Your task to perform on an android device: choose inbox layout in the gmail app Image 0: 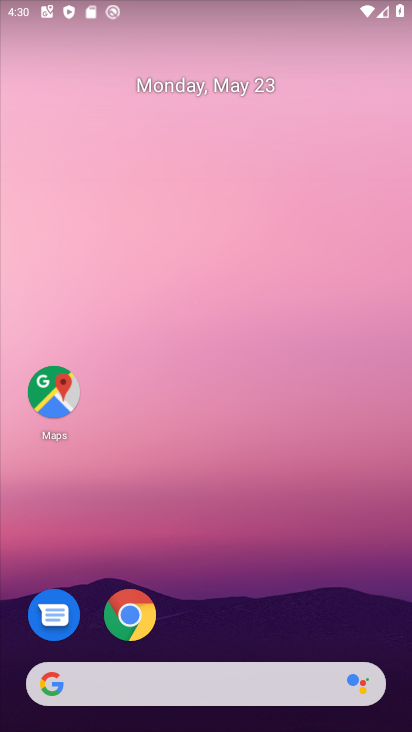
Step 0: drag from (193, 496) to (200, 130)
Your task to perform on an android device: choose inbox layout in the gmail app Image 1: 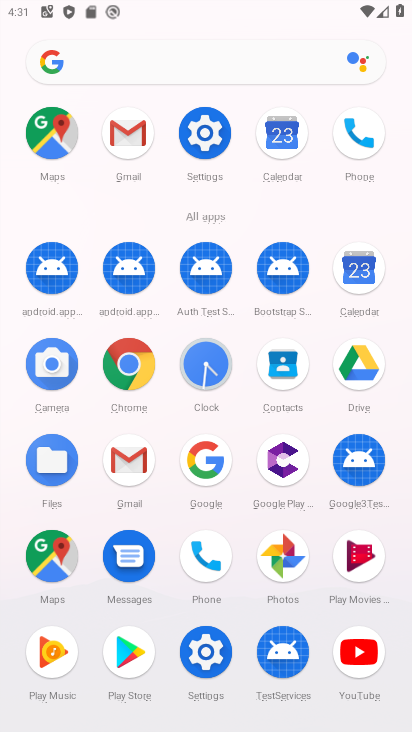
Step 1: click (132, 129)
Your task to perform on an android device: choose inbox layout in the gmail app Image 2: 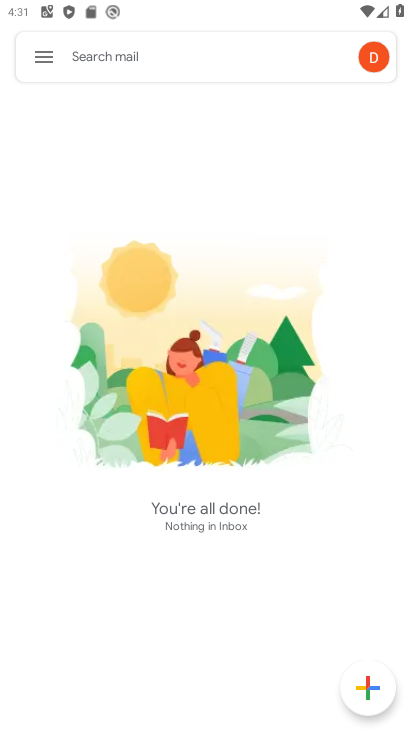
Step 2: click (38, 59)
Your task to perform on an android device: choose inbox layout in the gmail app Image 3: 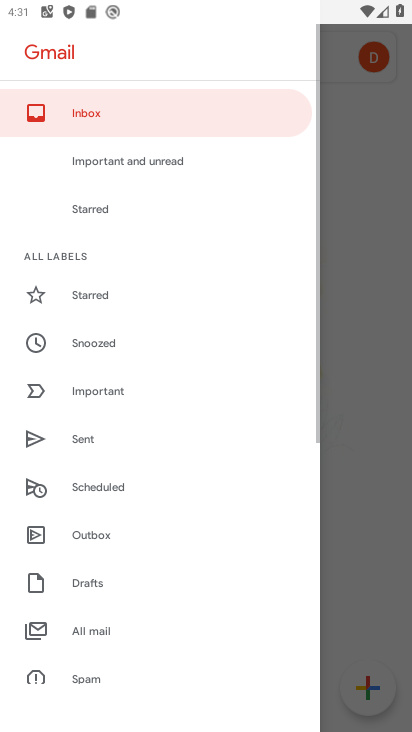
Step 3: drag from (166, 648) to (165, 97)
Your task to perform on an android device: choose inbox layout in the gmail app Image 4: 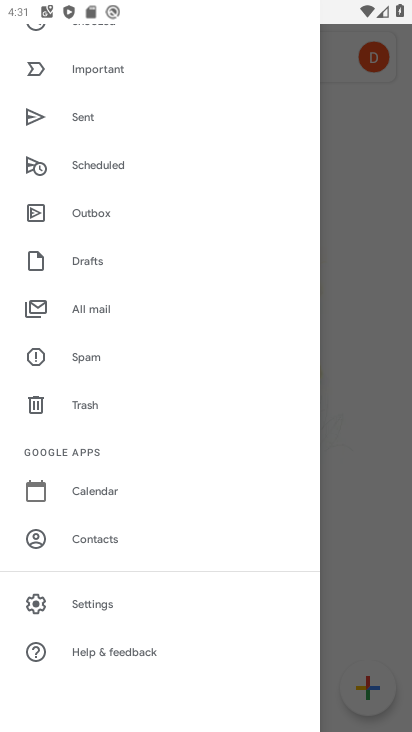
Step 4: click (110, 606)
Your task to perform on an android device: choose inbox layout in the gmail app Image 5: 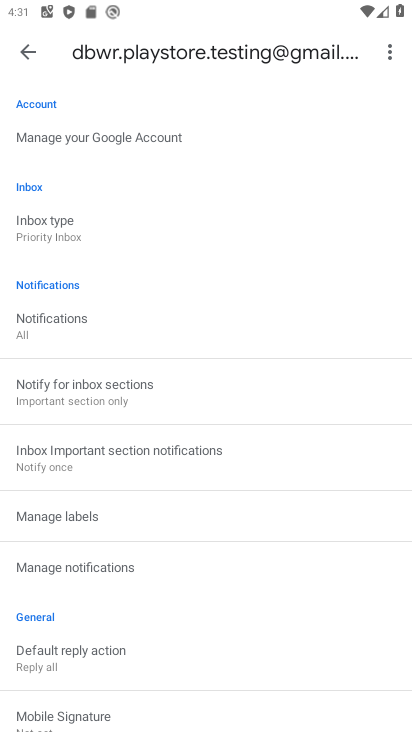
Step 5: click (57, 229)
Your task to perform on an android device: choose inbox layout in the gmail app Image 6: 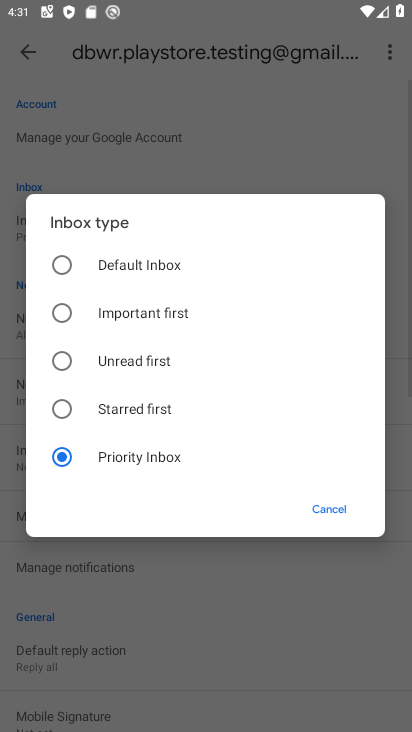
Step 6: click (62, 265)
Your task to perform on an android device: choose inbox layout in the gmail app Image 7: 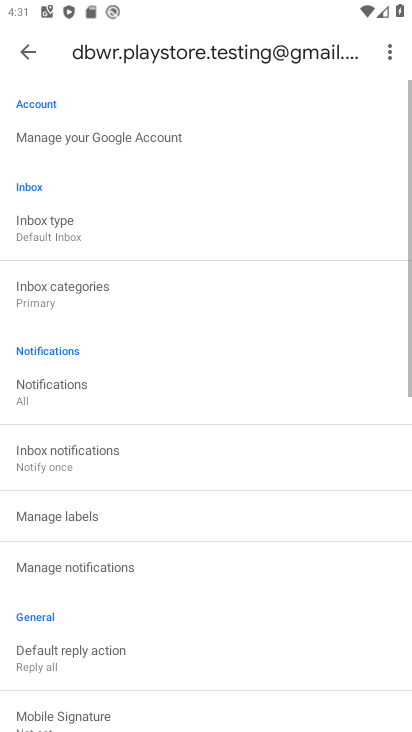
Step 7: task complete